Your task to perform on an android device: turn on location history Image 0: 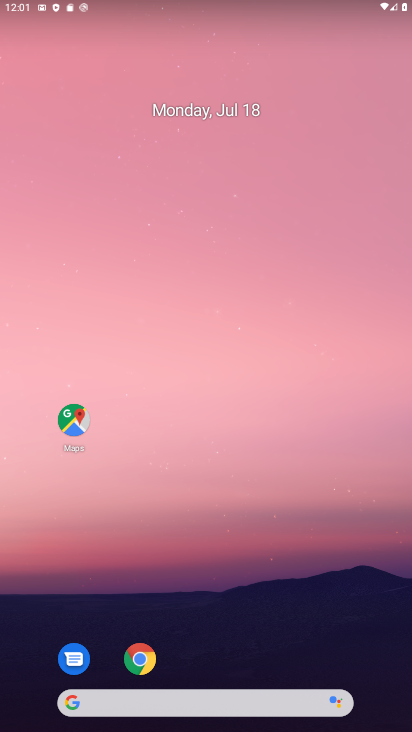
Step 0: drag from (284, 436) to (293, 234)
Your task to perform on an android device: turn on location history Image 1: 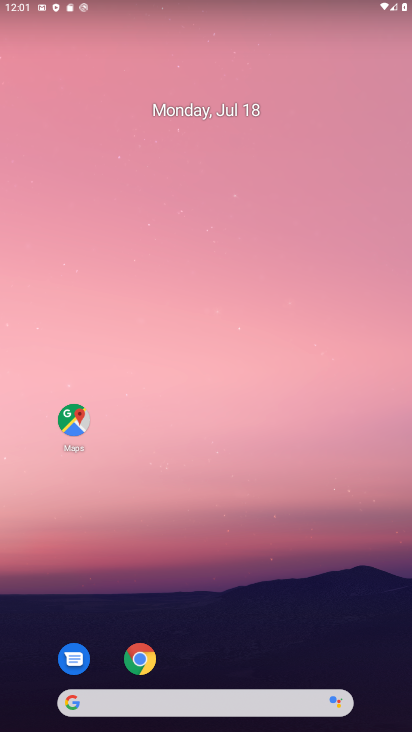
Step 1: drag from (259, 670) to (312, 150)
Your task to perform on an android device: turn on location history Image 2: 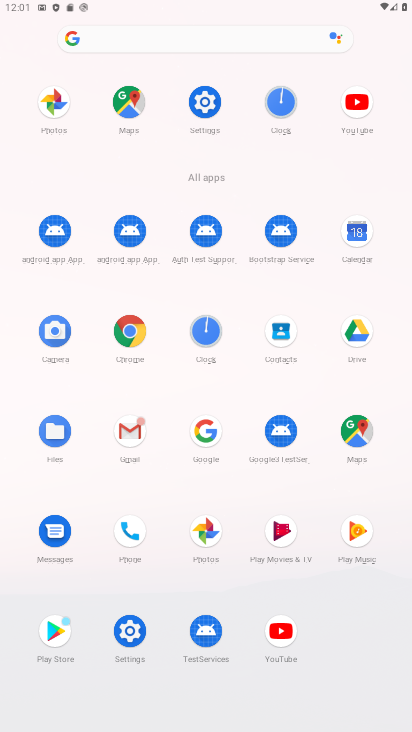
Step 2: click (124, 631)
Your task to perform on an android device: turn on location history Image 3: 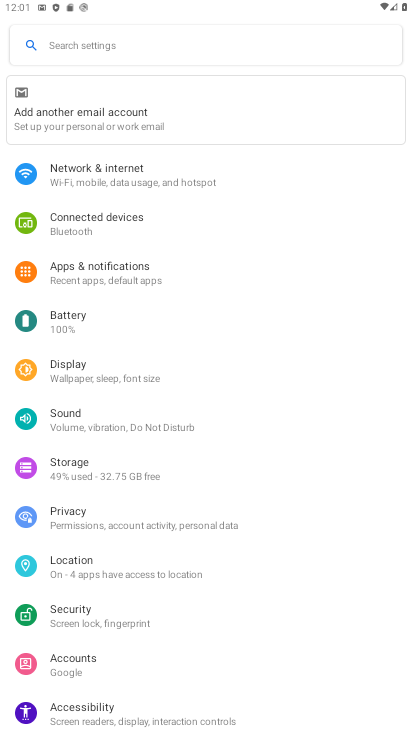
Step 3: click (113, 568)
Your task to perform on an android device: turn on location history Image 4: 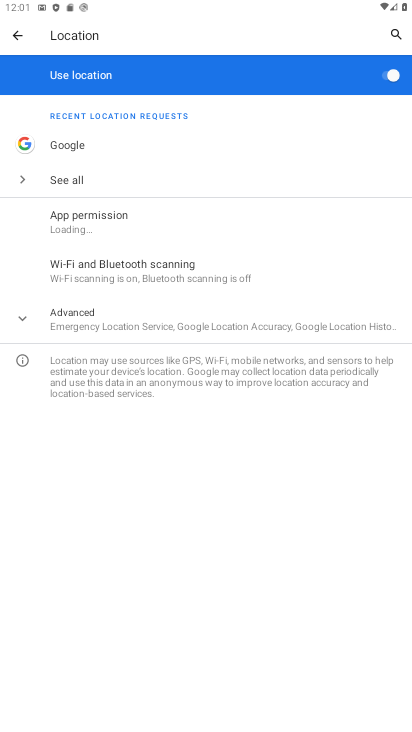
Step 4: click (184, 332)
Your task to perform on an android device: turn on location history Image 5: 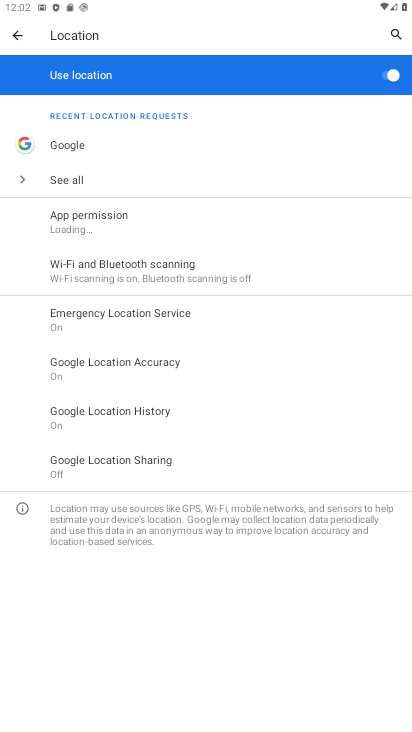
Step 5: click (180, 422)
Your task to perform on an android device: turn on location history Image 6: 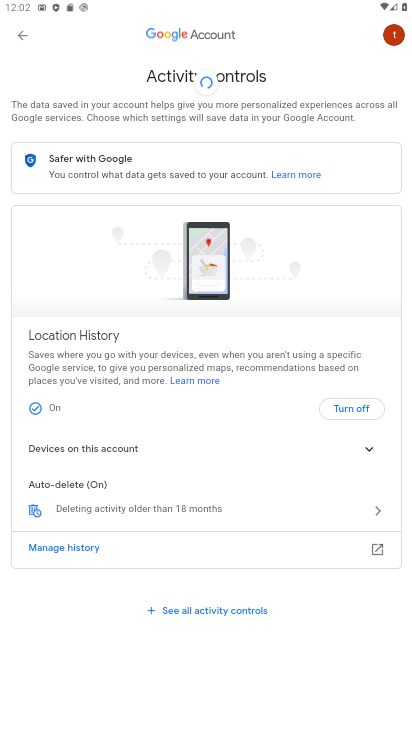
Step 6: task complete